Your task to perform on an android device: add a contact in the contacts app Image 0: 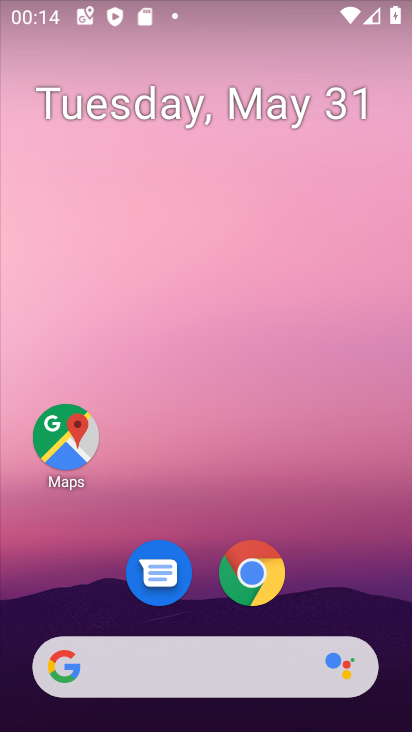
Step 0: click (208, 675)
Your task to perform on an android device: add a contact in the contacts app Image 1: 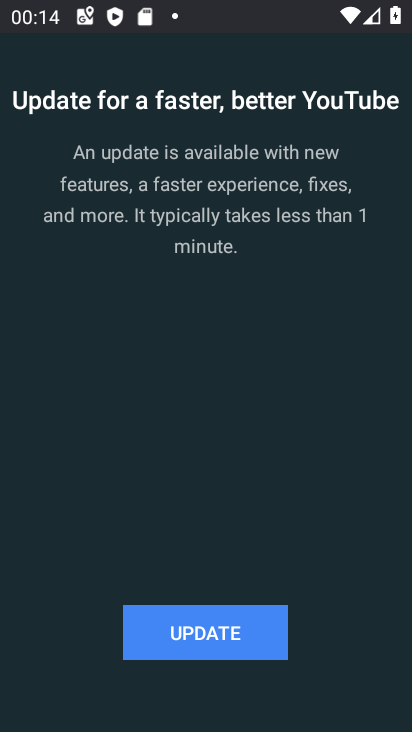
Step 1: click (228, 648)
Your task to perform on an android device: add a contact in the contacts app Image 2: 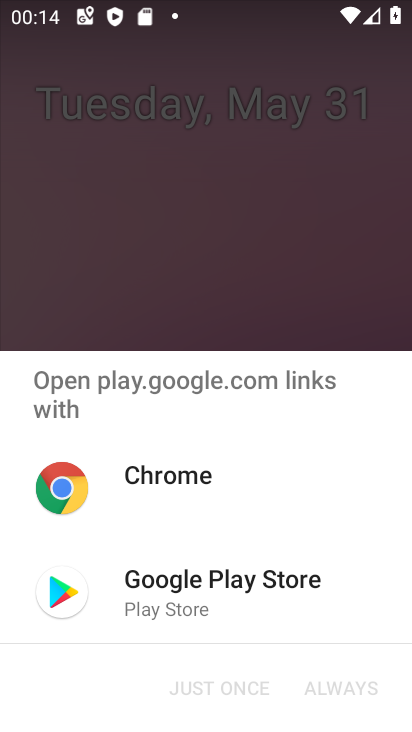
Step 2: press home button
Your task to perform on an android device: add a contact in the contacts app Image 3: 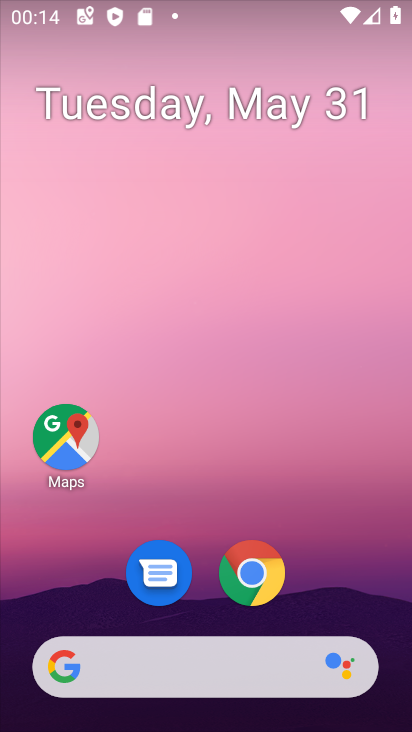
Step 3: drag from (206, 597) to (219, 0)
Your task to perform on an android device: add a contact in the contacts app Image 4: 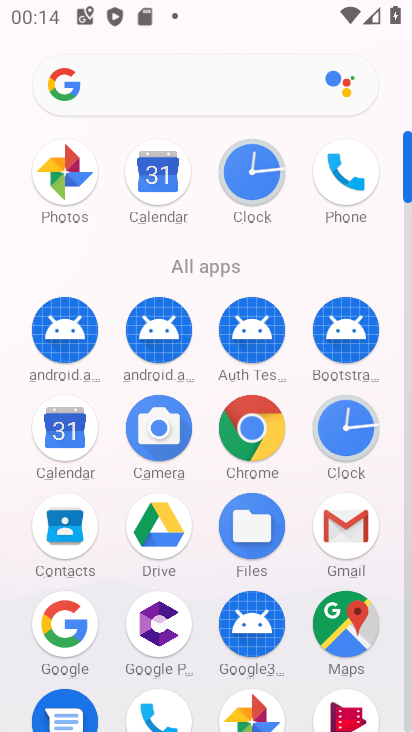
Step 4: click (72, 518)
Your task to perform on an android device: add a contact in the contacts app Image 5: 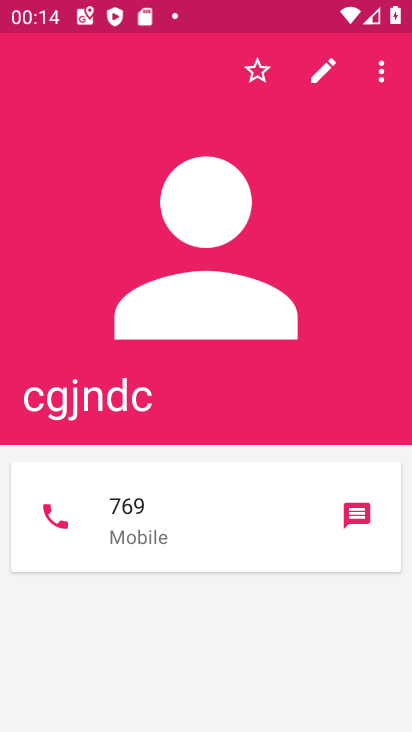
Step 5: press back button
Your task to perform on an android device: add a contact in the contacts app Image 6: 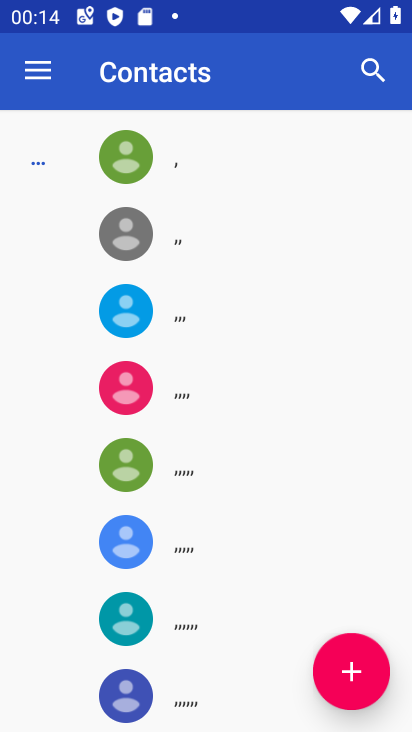
Step 6: click (340, 668)
Your task to perform on an android device: add a contact in the contacts app Image 7: 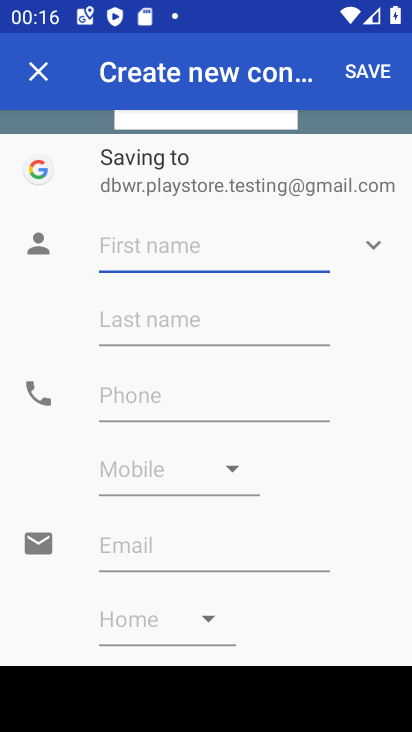
Step 7: type "hjhj"
Your task to perform on an android device: add a contact in the contacts app Image 8: 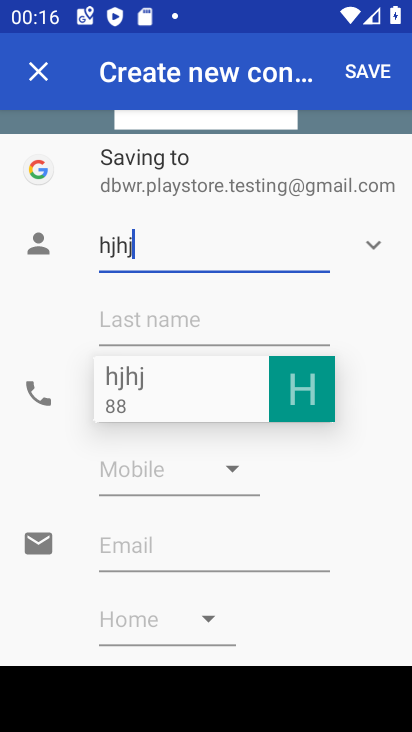
Step 8: click (215, 309)
Your task to perform on an android device: add a contact in the contacts app Image 9: 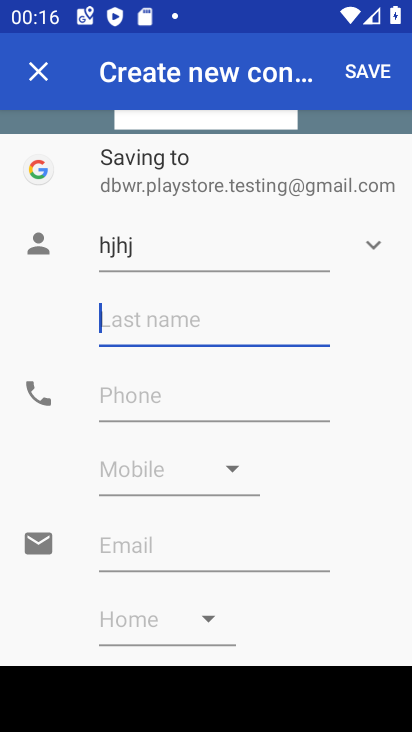
Step 9: click (160, 409)
Your task to perform on an android device: add a contact in the contacts app Image 10: 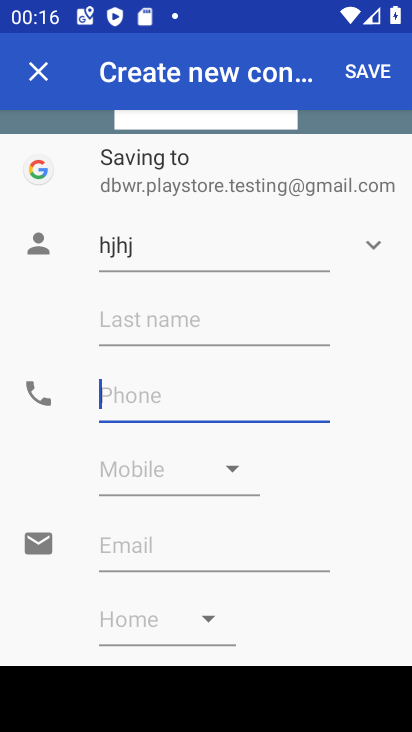
Step 10: click (176, 398)
Your task to perform on an android device: add a contact in the contacts app Image 11: 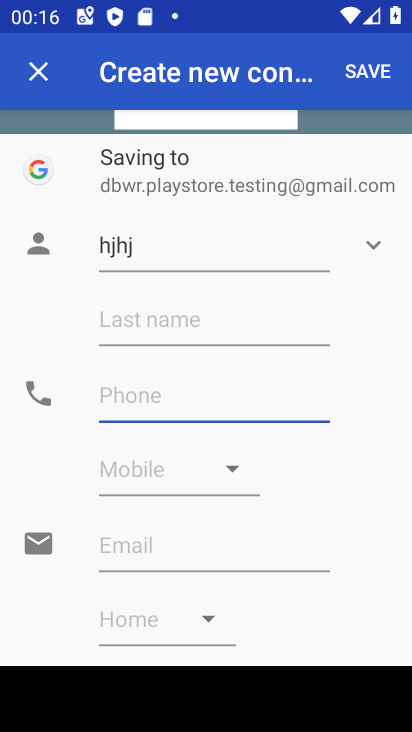
Step 11: type "6t67887"
Your task to perform on an android device: add a contact in the contacts app Image 12: 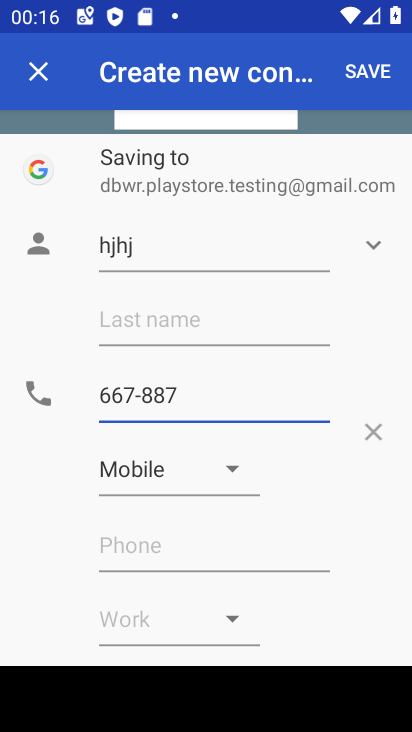
Step 12: click (361, 72)
Your task to perform on an android device: add a contact in the contacts app Image 13: 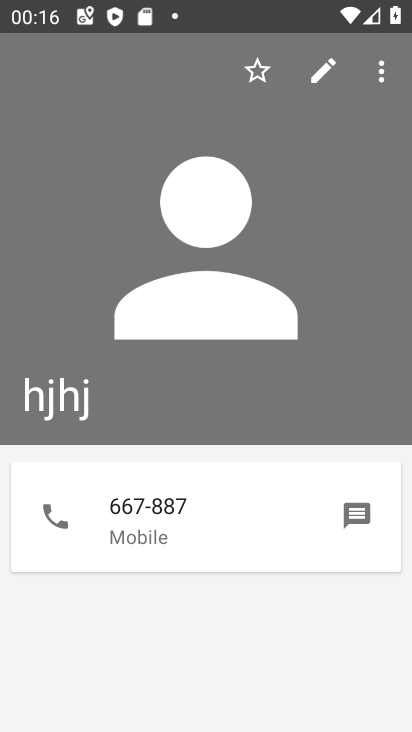
Step 13: task complete